Your task to perform on an android device: turn off javascript in the chrome app Image 0: 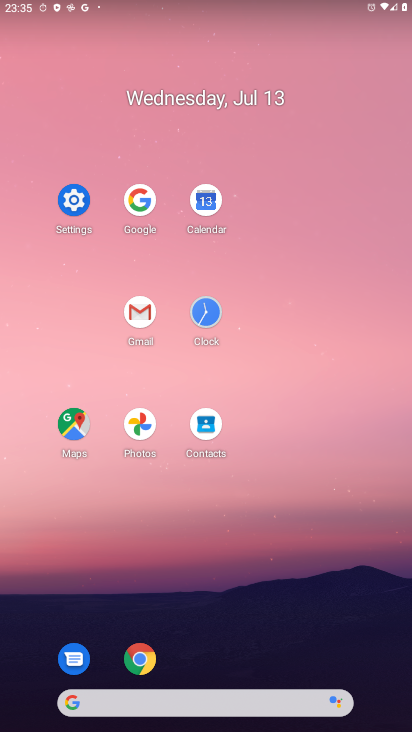
Step 0: click (138, 664)
Your task to perform on an android device: turn off javascript in the chrome app Image 1: 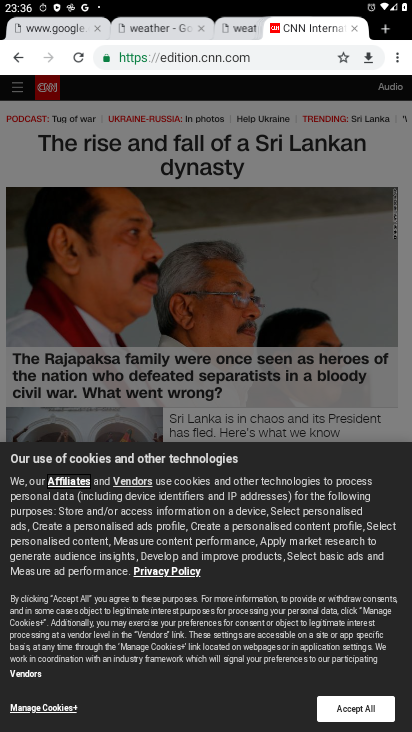
Step 1: click (396, 57)
Your task to perform on an android device: turn off javascript in the chrome app Image 2: 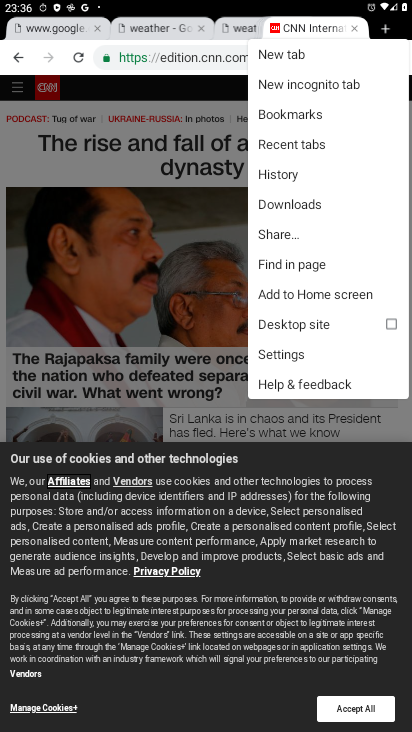
Step 2: click (296, 348)
Your task to perform on an android device: turn off javascript in the chrome app Image 3: 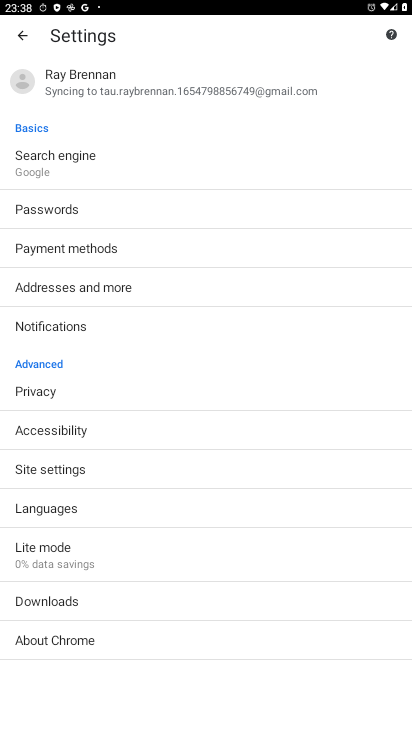
Step 3: press home button
Your task to perform on an android device: turn off javascript in the chrome app Image 4: 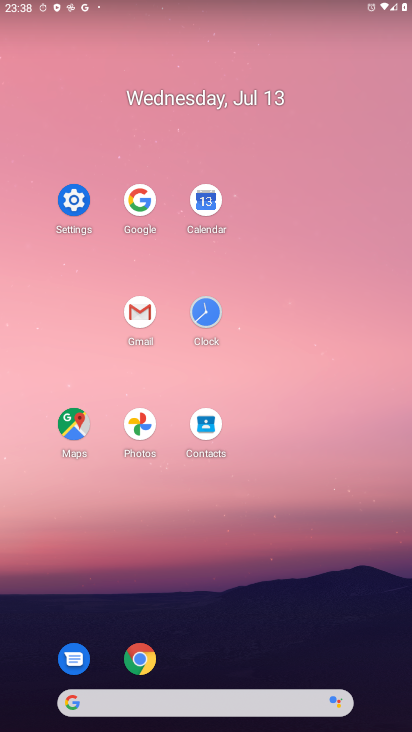
Step 4: click (141, 652)
Your task to perform on an android device: turn off javascript in the chrome app Image 5: 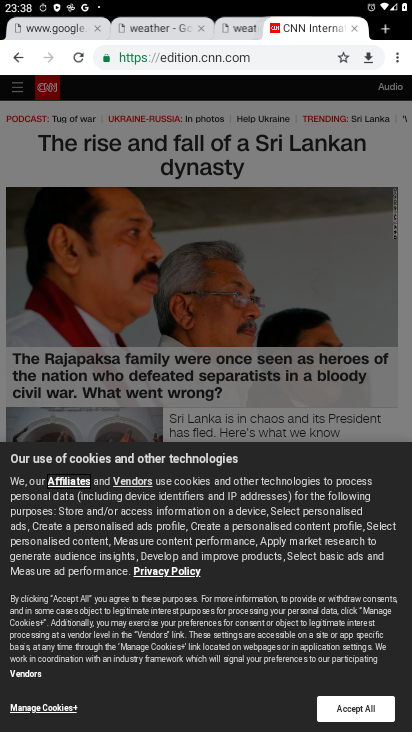
Step 5: click (399, 61)
Your task to perform on an android device: turn off javascript in the chrome app Image 6: 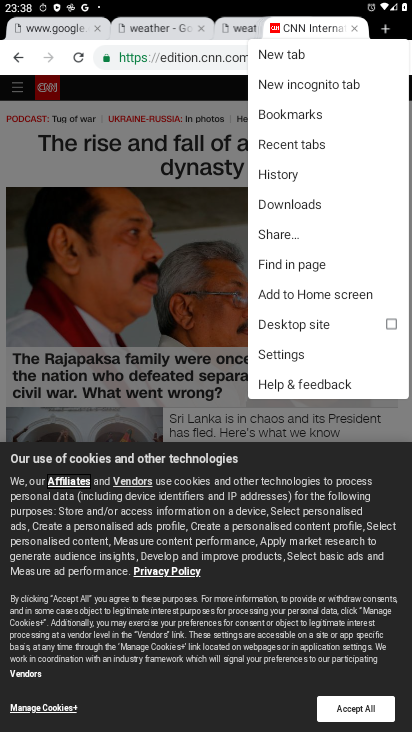
Step 6: click (290, 350)
Your task to perform on an android device: turn off javascript in the chrome app Image 7: 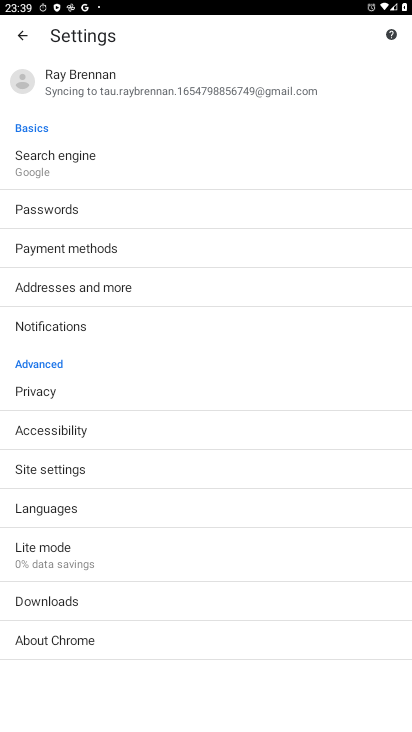
Step 7: click (92, 470)
Your task to perform on an android device: turn off javascript in the chrome app Image 8: 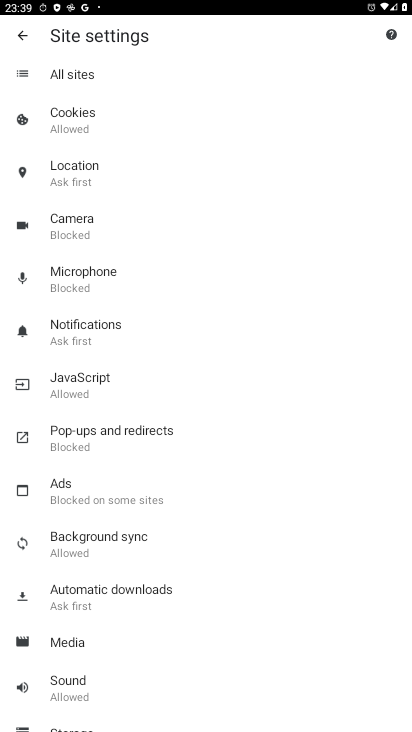
Step 8: click (101, 386)
Your task to perform on an android device: turn off javascript in the chrome app Image 9: 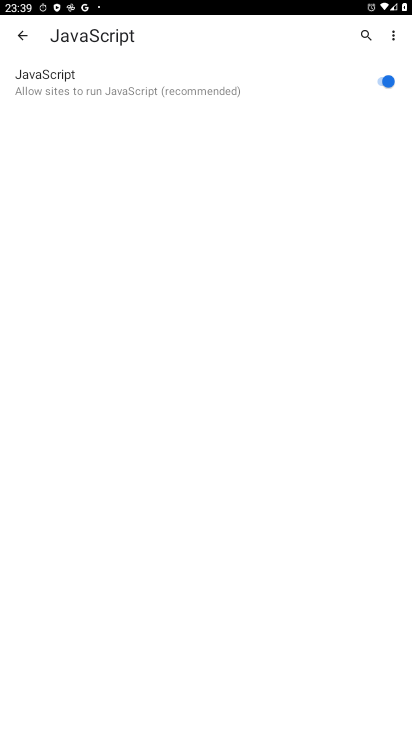
Step 9: click (382, 94)
Your task to perform on an android device: turn off javascript in the chrome app Image 10: 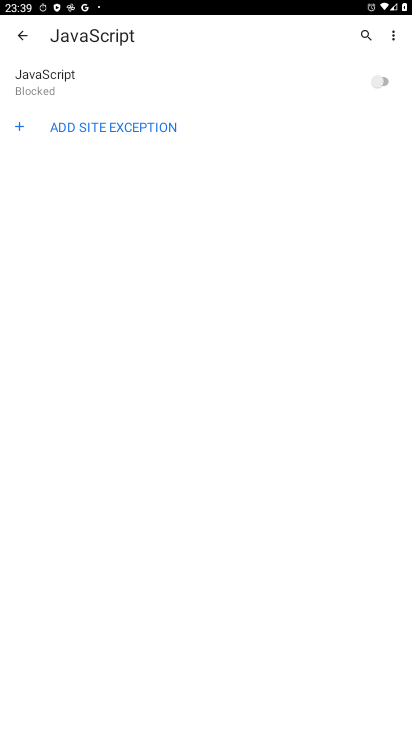
Step 10: task complete